Your task to perform on an android device: delete a single message in the gmail app Image 0: 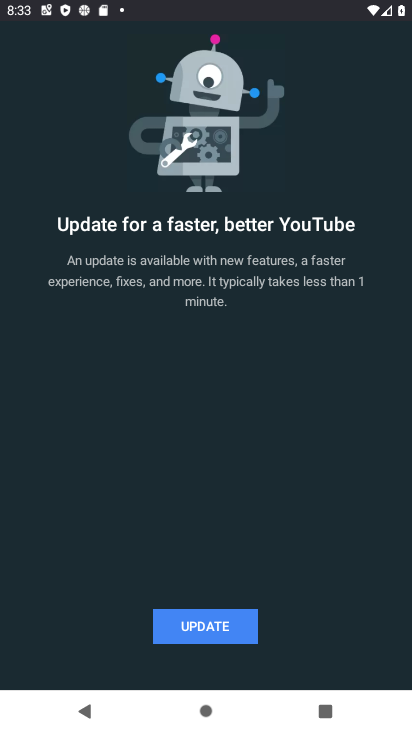
Step 0: press home button
Your task to perform on an android device: delete a single message in the gmail app Image 1: 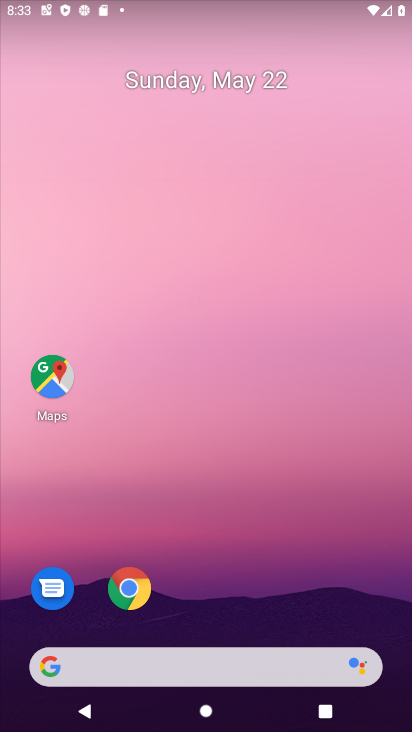
Step 1: drag from (273, 545) to (204, 68)
Your task to perform on an android device: delete a single message in the gmail app Image 2: 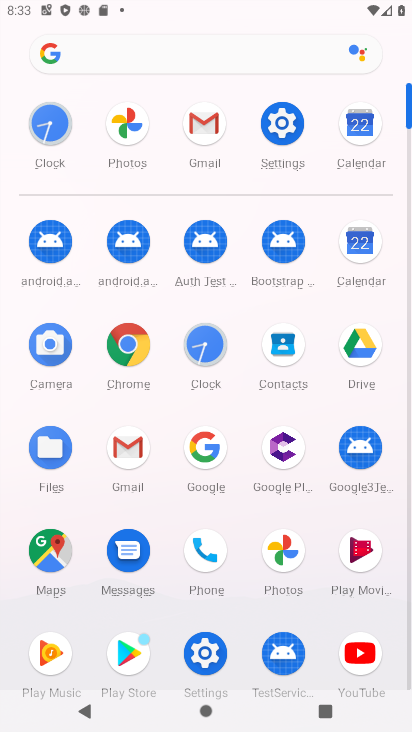
Step 2: click (197, 124)
Your task to perform on an android device: delete a single message in the gmail app Image 3: 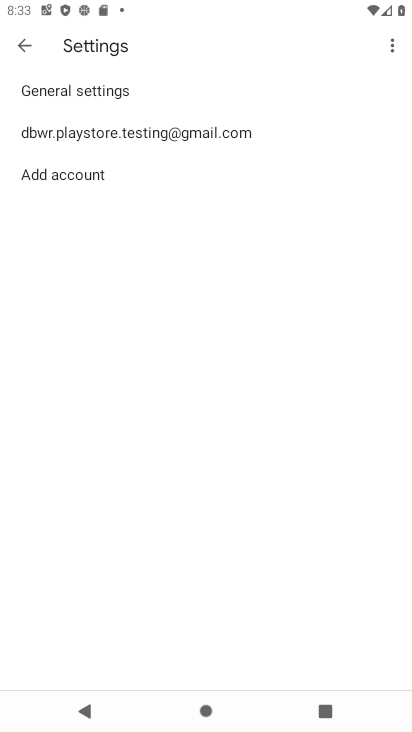
Step 3: click (16, 40)
Your task to perform on an android device: delete a single message in the gmail app Image 4: 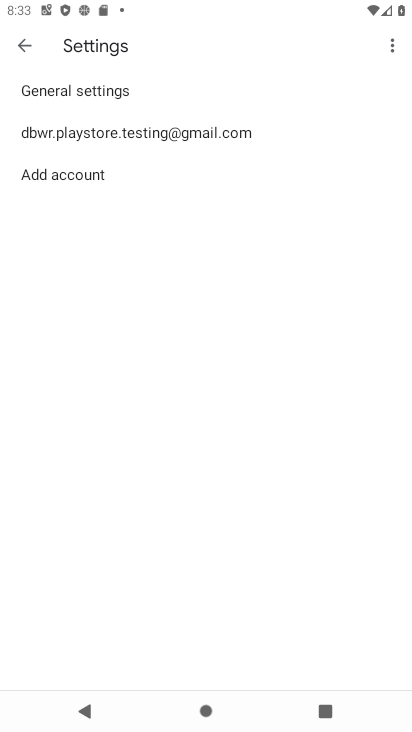
Step 4: click (27, 44)
Your task to perform on an android device: delete a single message in the gmail app Image 5: 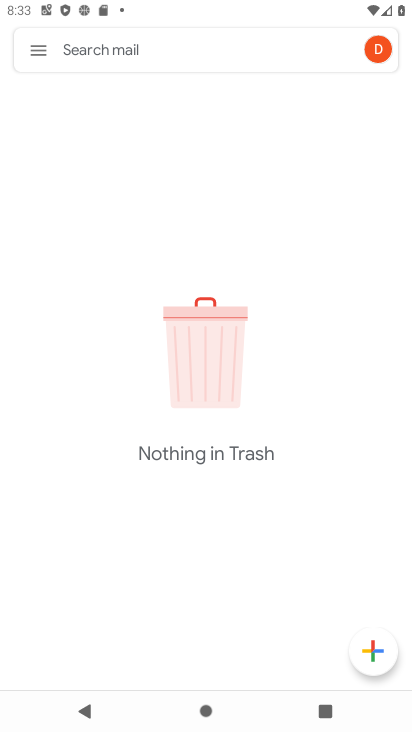
Step 5: click (23, 37)
Your task to perform on an android device: delete a single message in the gmail app Image 6: 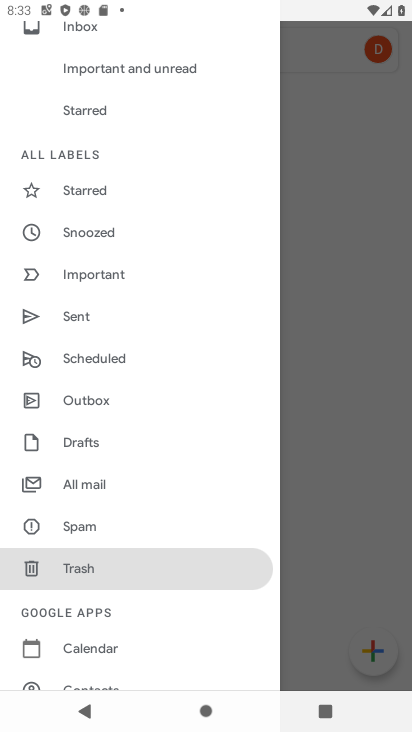
Step 6: click (97, 476)
Your task to perform on an android device: delete a single message in the gmail app Image 7: 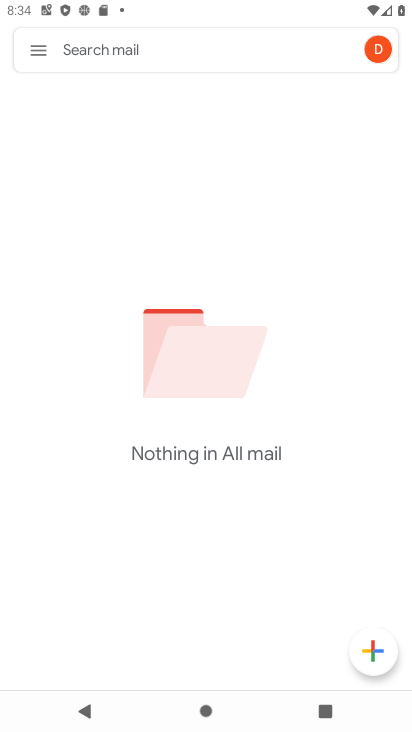
Step 7: task complete